Your task to perform on an android device: Open Chrome and go to settings Image 0: 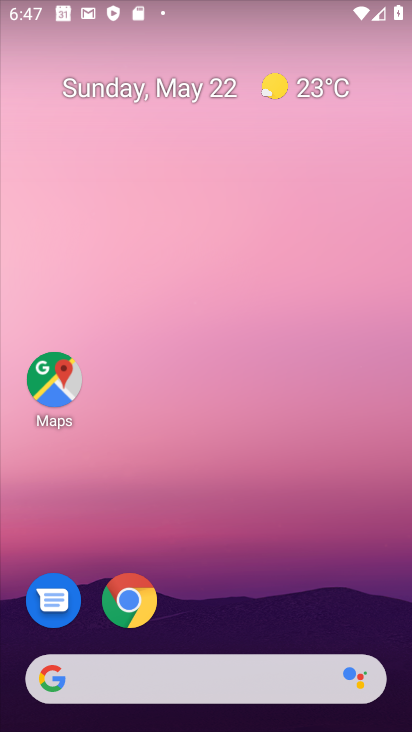
Step 0: drag from (322, 627) to (210, 80)
Your task to perform on an android device: Open Chrome and go to settings Image 1: 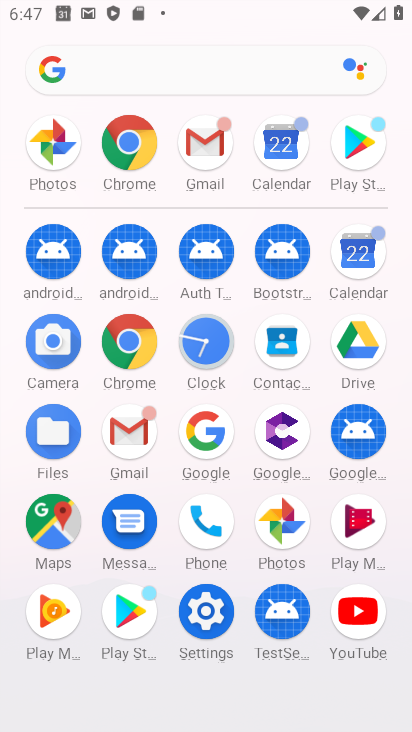
Step 1: click (134, 165)
Your task to perform on an android device: Open Chrome and go to settings Image 2: 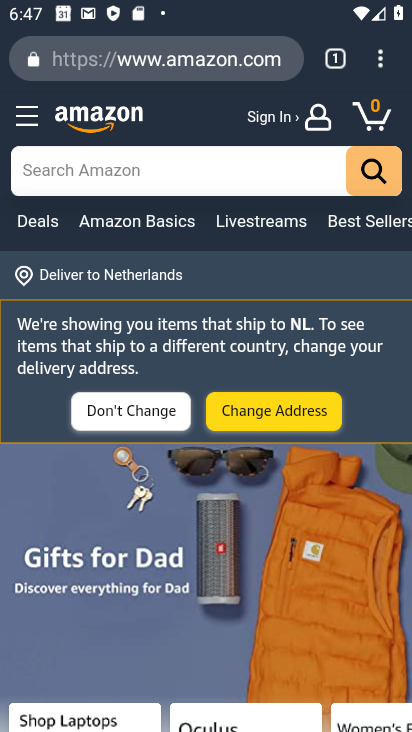
Step 2: press back button
Your task to perform on an android device: Open Chrome and go to settings Image 3: 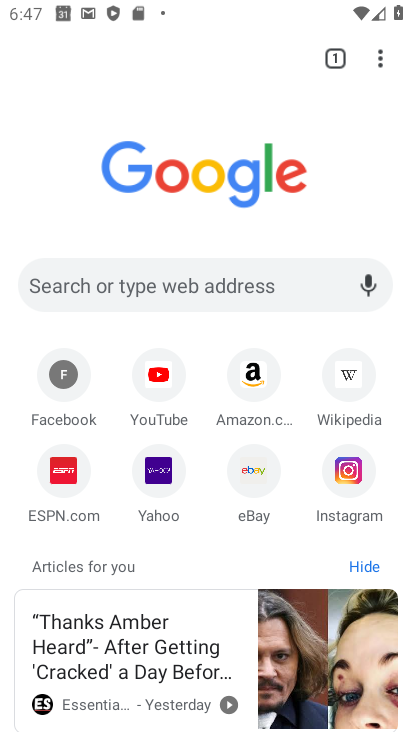
Step 3: click (380, 62)
Your task to perform on an android device: Open Chrome and go to settings Image 4: 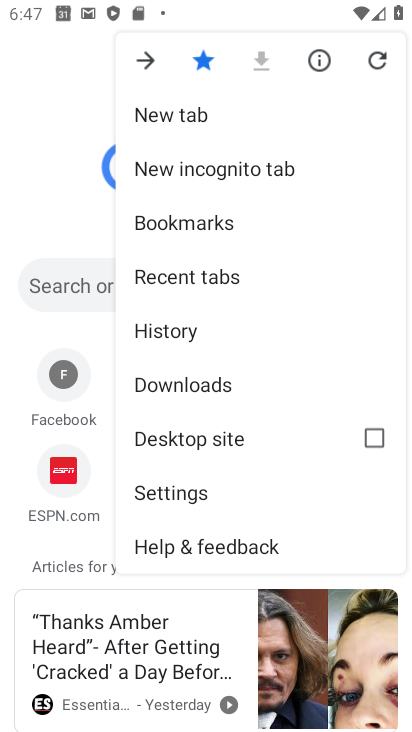
Step 4: click (185, 491)
Your task to perform on an android device: Open Chrome and go to settings Image 5: 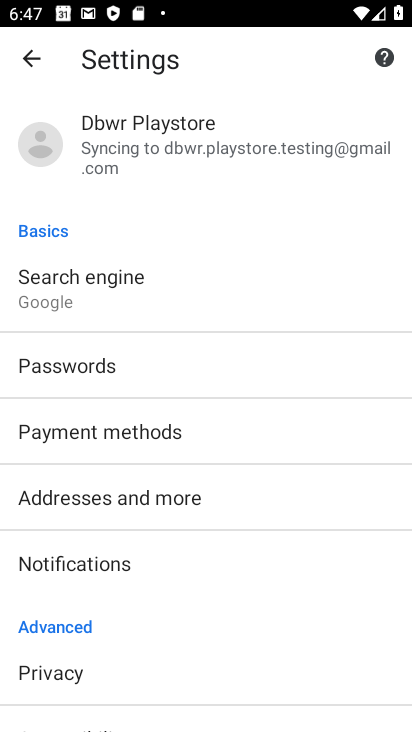
Step 5: task complete